Your task to perform on an android device: turn vacation reply on in the gmail app Image 0: 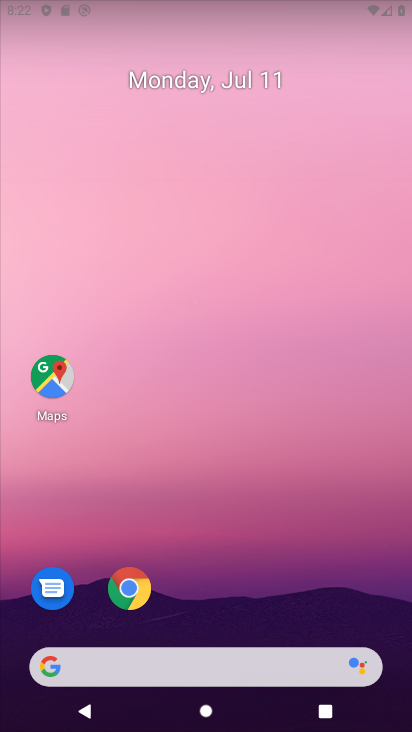
Step 0: drag from (249, 679) to (390, 17)
Your task to perform on an android device: turn vacation reply on in the gmail app Image 1: 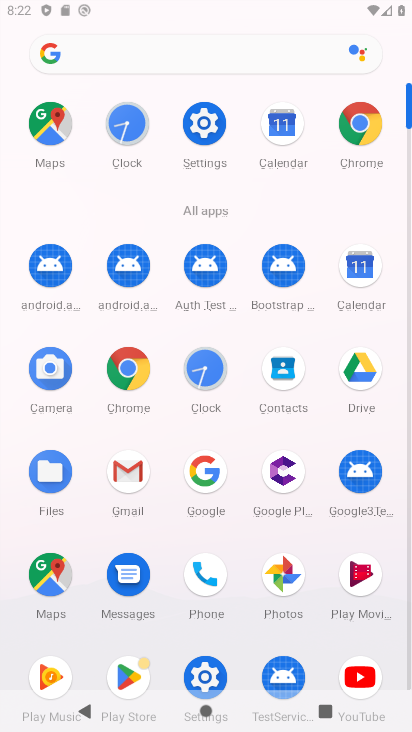
Step 1: click (120, 465)
Your task to perform on an android device: turn vacation reply on in the gmail app Image 2: 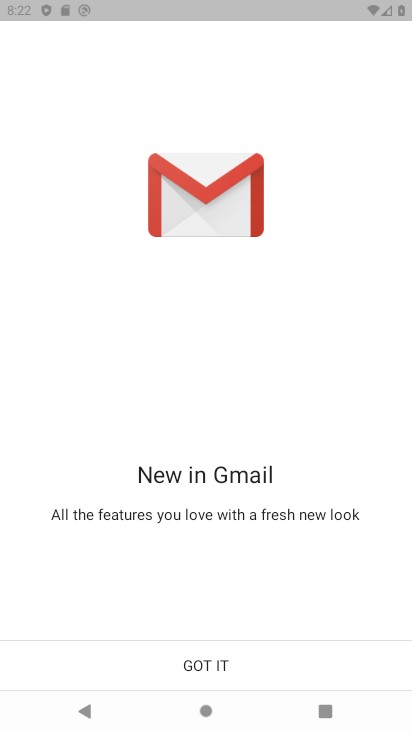
Step 2: click (282, 664)
Your task to perform on an android device: turn vacation reply on in the gmail app Image 3: 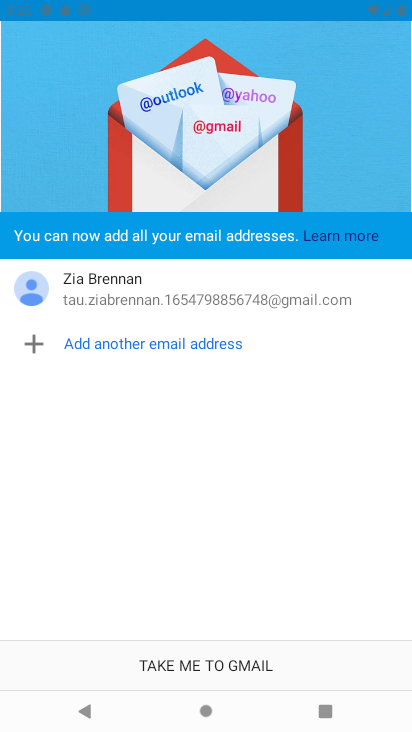
Step 3: click (238, 665)
Your task to perform on an android device: turn vacation reply on in the gmail app Image 4: 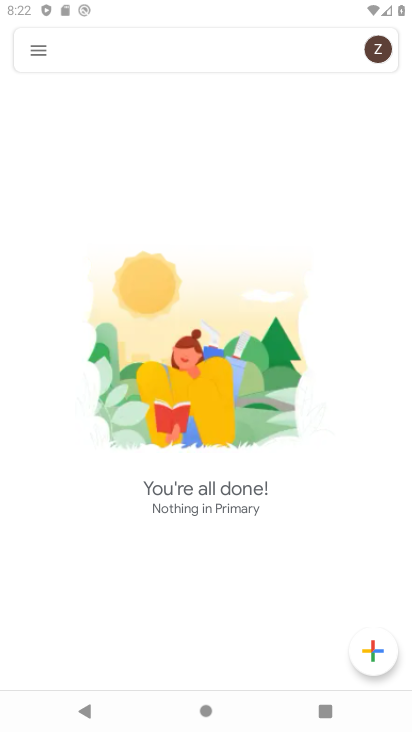
Step 4: click (35, 46)
Your task to perform on an android device: turn vacation reply on in the gmail app Image 5: 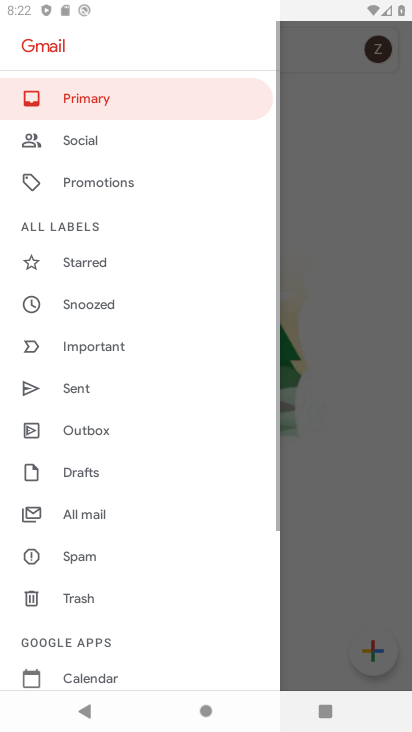
Step 5: drag from (122, 599) to (237, 79)
Your task to perform on an android device: turn vacation reply on in the gmail app Image 6: 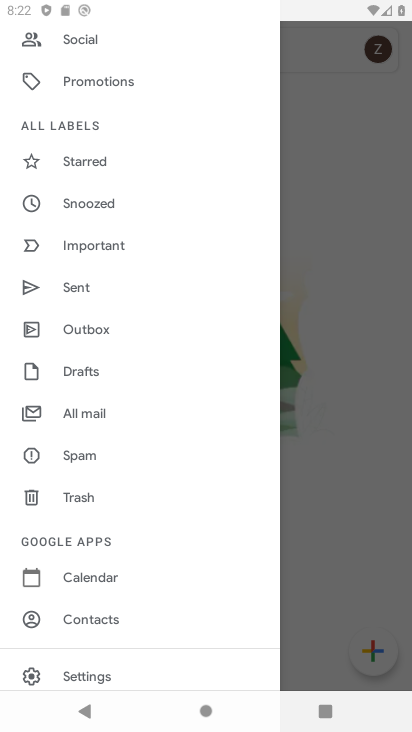
Step 6: click (92, 674)
Your task to perform on an android device: turn vacation reply on in the gmail app Image 7: 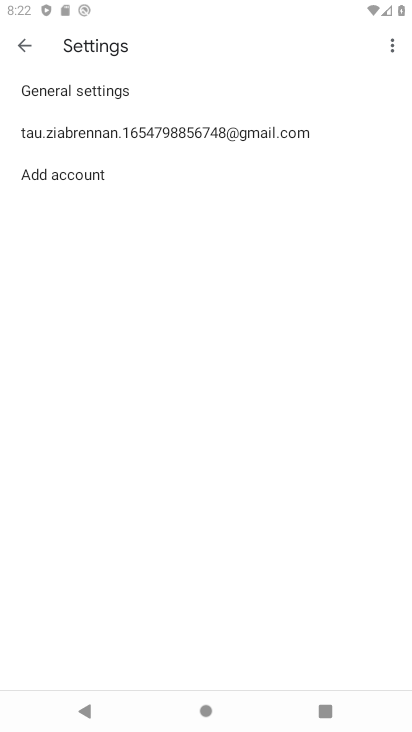
Step 7: click (203, 135)
Your task to perform on an android device: turn vacation reply on in the gmail app Image 8: 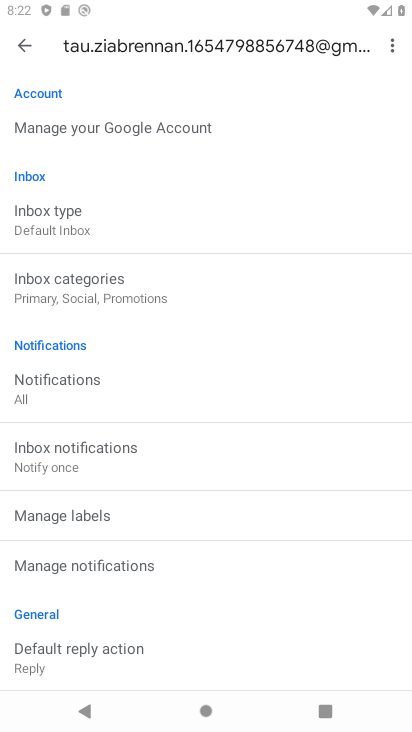
Step 8: drag from (242, 633) to (168, 30)
Your task to perform on an android device: turn vacation reply on in the gmail app Image 9: 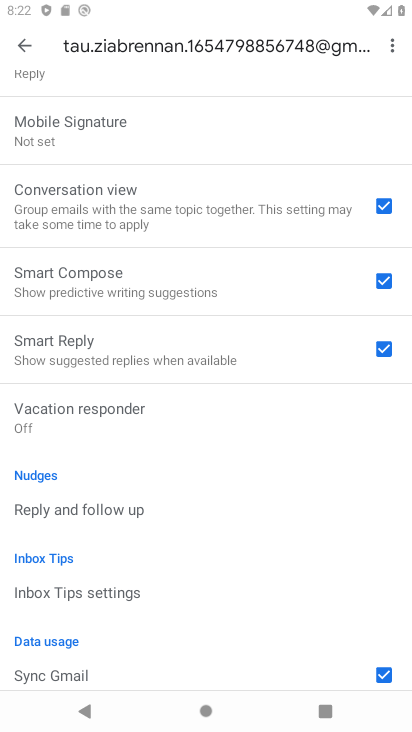
Step 9: click (182, 409)
Your task to perform on an android device: turn vacation reply on in the gmail app Image 10: 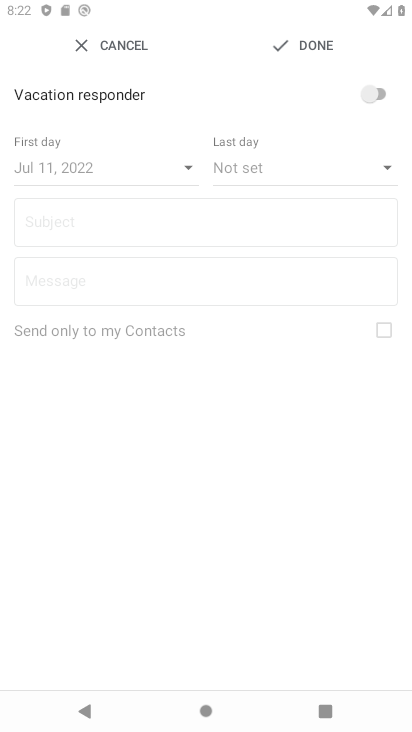
Step 10: click (373, 96)
Your task to perform on an android device: turn vacation reply on in the gmail app Image 11: 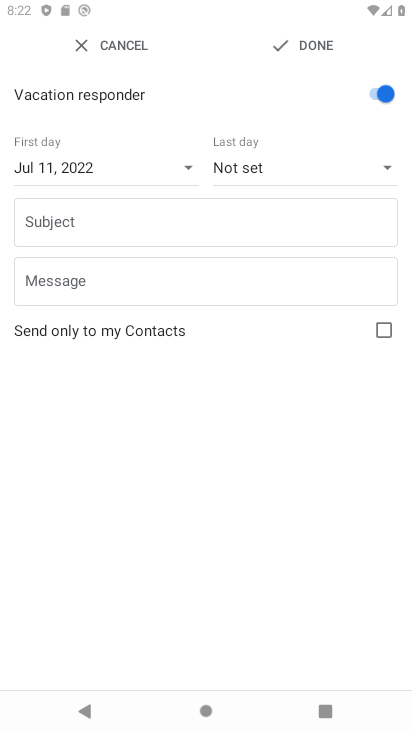
Step 11: click (315, 39)
Your task to perform on an android device: turn vacation reply on in the gmail app Image 12: 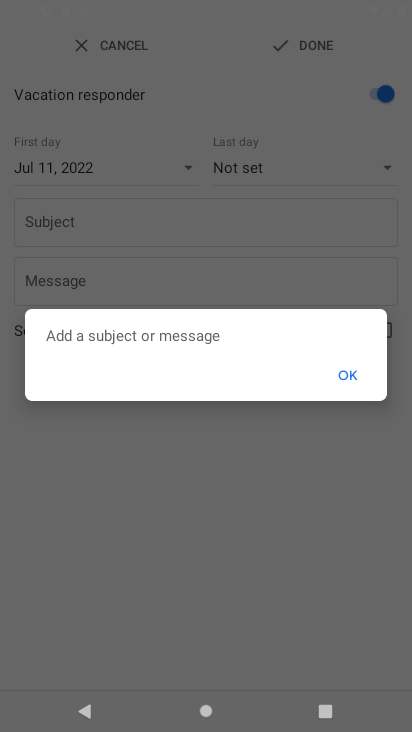
Step 12: click (344, 374)
Your task to perform on an android device: turn vacation reply on in the gmail app Image 13: 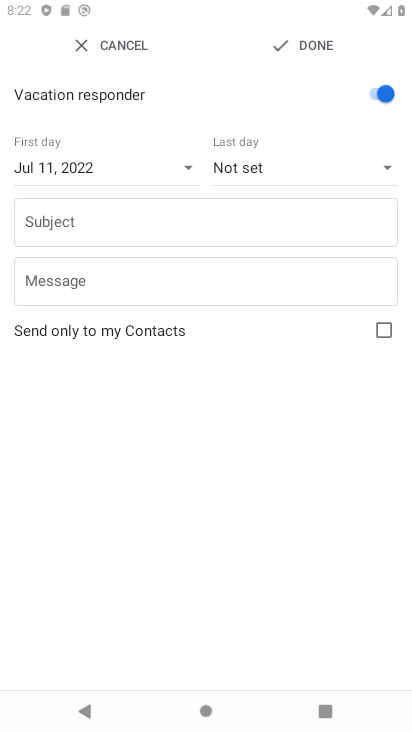
Step 13: click (169, 228)
Your task to perform on an android device: turn vacation reply on in the gmail app Image 14: 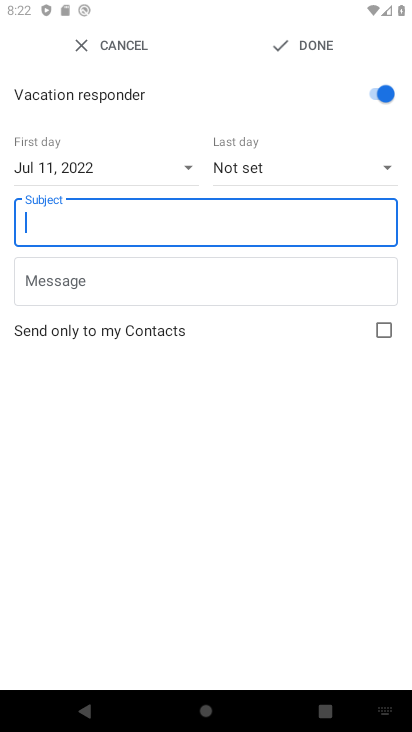
Step 14: type "jhkhgjk"
Your task to perform on an android device: turn vacation reply on in the gmail app Image 15: 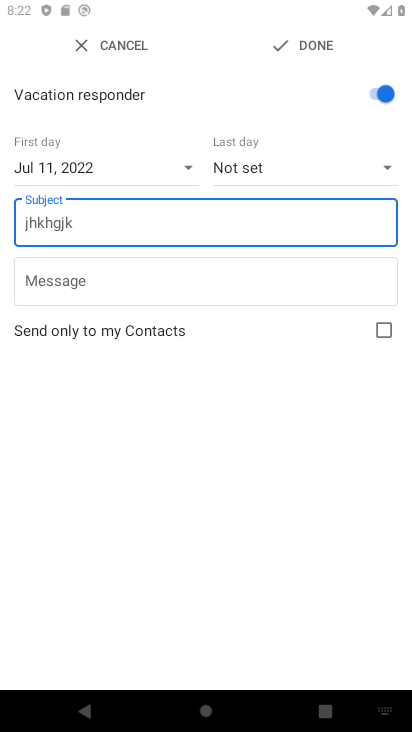
Step 15: click (308, 37)
Your task to perform on an android device: turn vacation reply on in the gmail app Image 16: 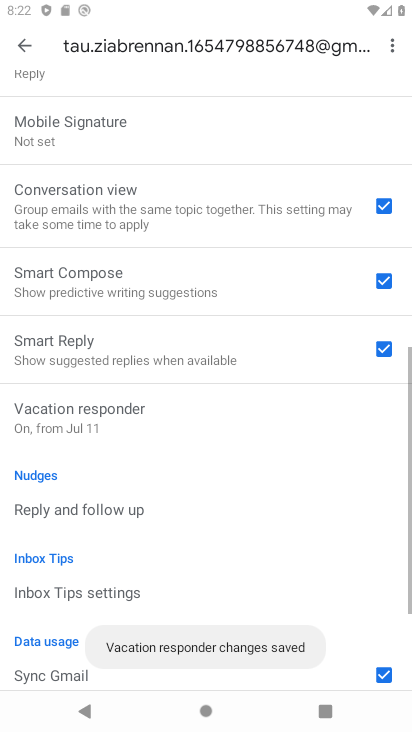
Step 16: task complete